Your task to perform on an android device: turn notification dots off Image 0: 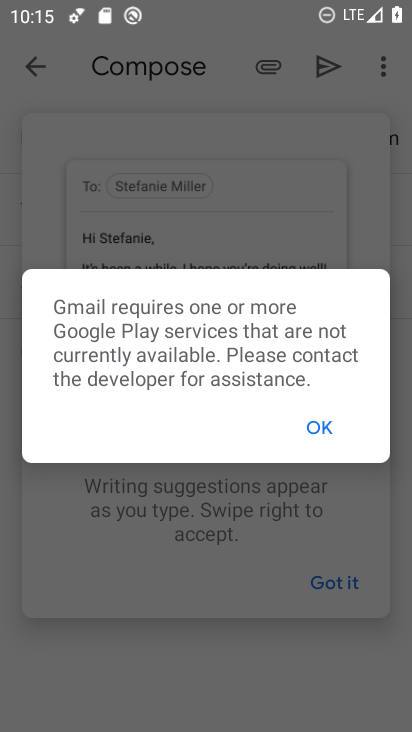
Step 0: press home button
Your task to perform on an android device: turn notification dots off Image 1: 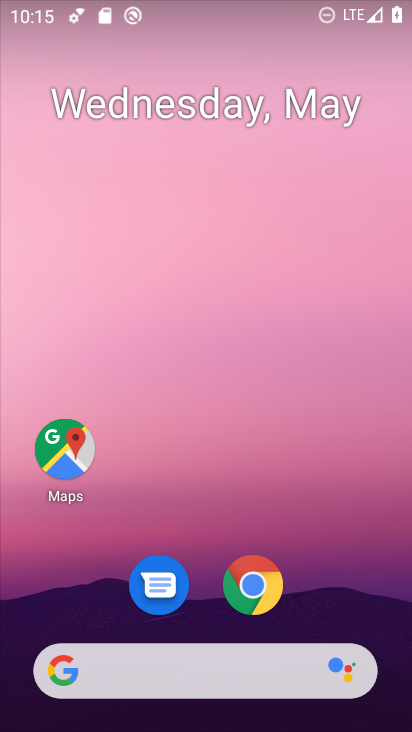
Step 1: drag from (252, 475) to (273, 41)
Your task to perform on an android device: turn notification dots off Image 2: 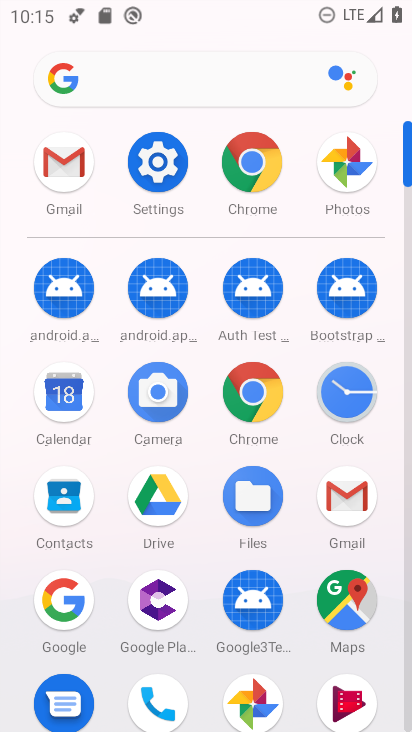
Step 2: click (169, 174)
Your task to perform on an android device: turn notification dots off Image 3: 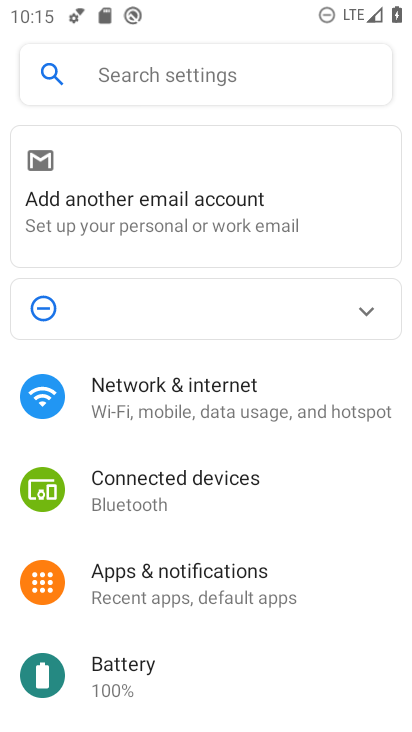
Step 3: click (195, 396)
Your task to perform on an android device: turn notification dots off Image 4: 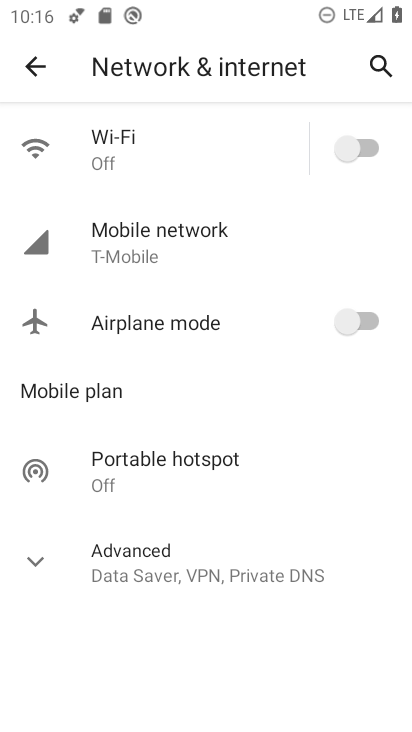
Step 4: click (39, 61)
Your task to perform on an android device: turn notification dots off Image 5: 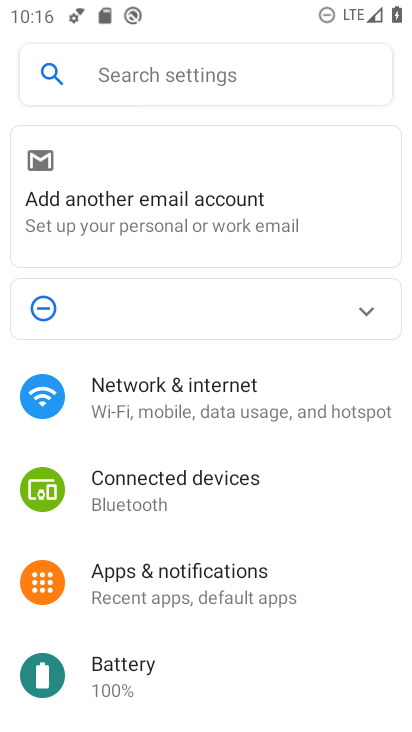
Step 5: click (204, 582)
Your task to perform on an android device: turn notification dots off Image 6: 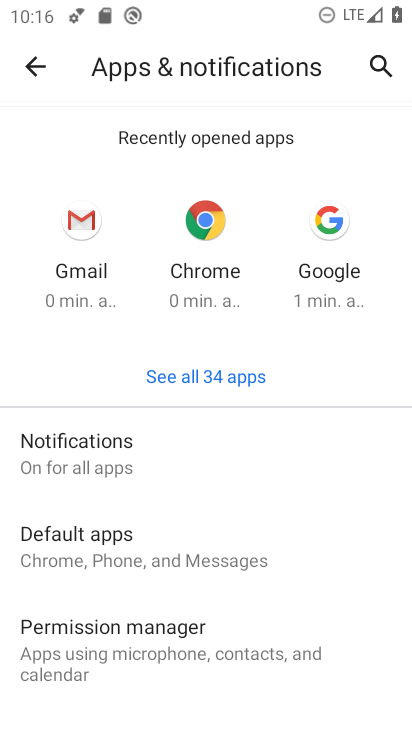
Step 6: click (201, 435)
Your task to perform on an android device: turn notification dots off Image 7: 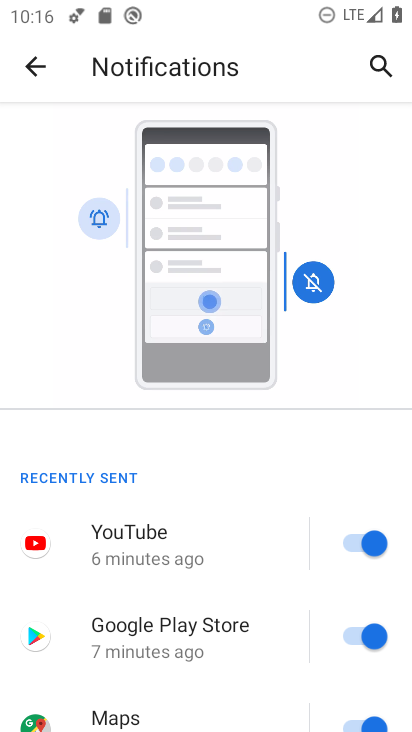
Step 7: drag from (204, 554) to (187, 203)
Your task to perform on an android device: turn notification dots off Image 8: 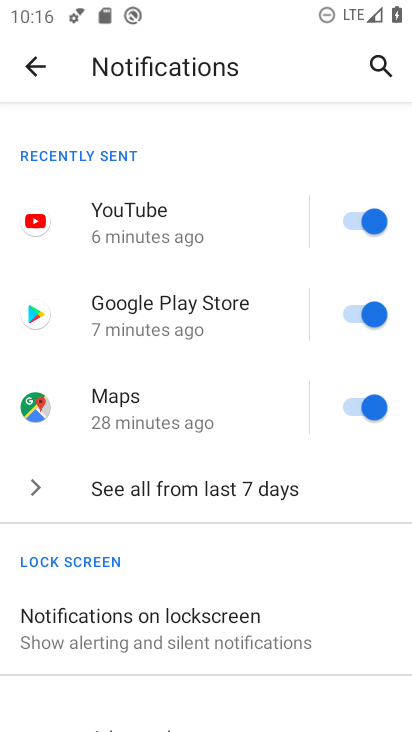
Step 8: click (228, 622)
Your task to perform on an android device: turn notification dots off Image 9: 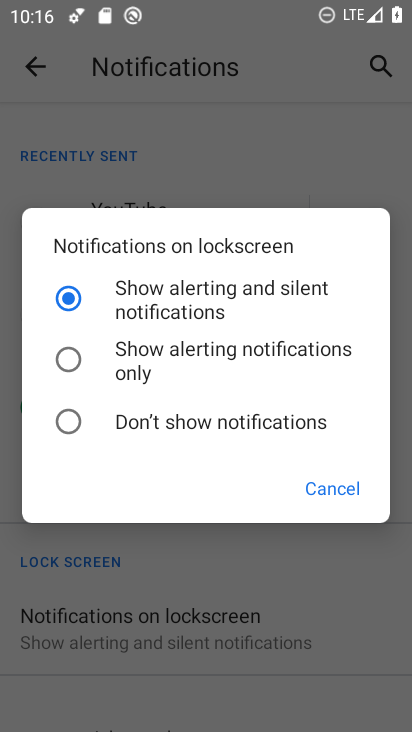
Step 9: click (342, 487)
Your task to perform on an android device: turn notification dots off Image 10: 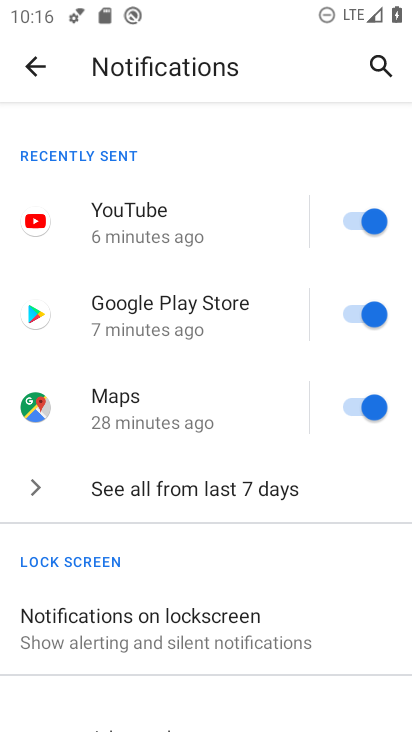
Step 10: drag from (272, 578) to (245, 270)
Your task to perform on an android device: turn notification dots off Image 11: 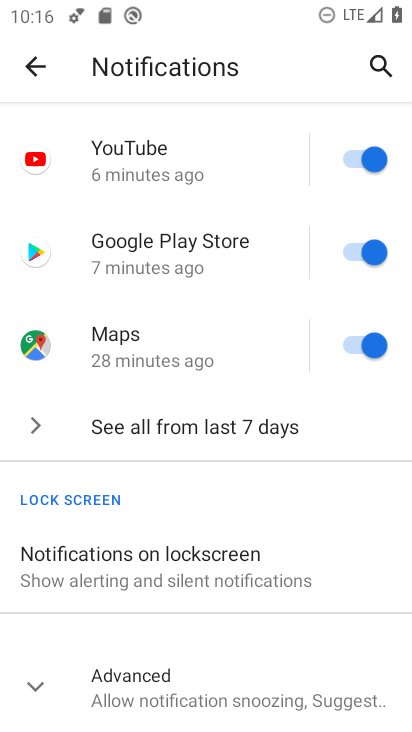
Step 11: click (36, 677)
Your task to perform on an android device: turn notification dots off Image 12: 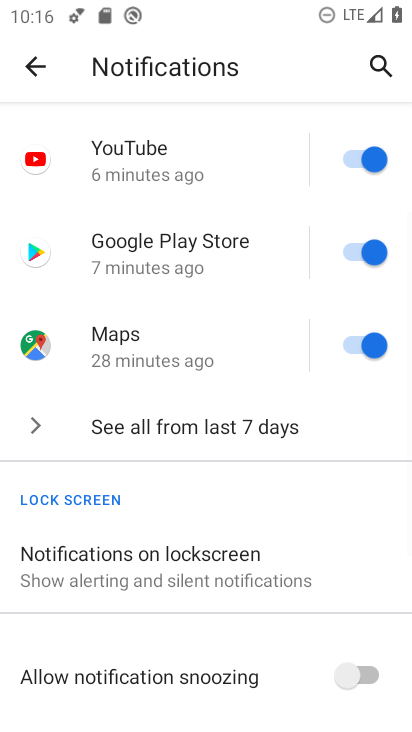
Step 12: drag from (215, 607) to (207, 310)
Your task to perform on an android device: turn notification dots off Image 13: 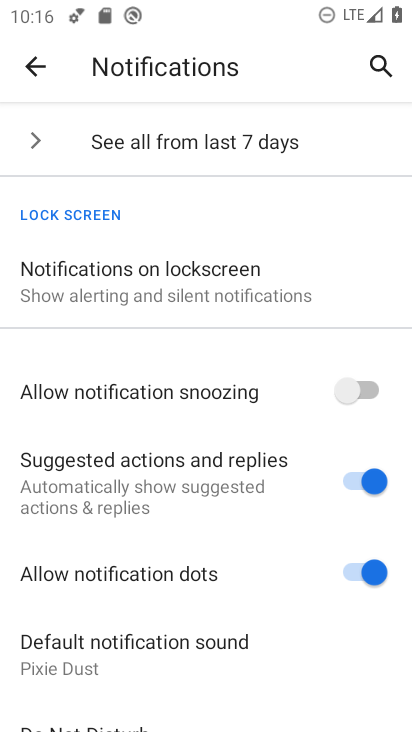
Step 13: click (354, 570)
Your task to perform on an android device: turn notification dots off Image 14: 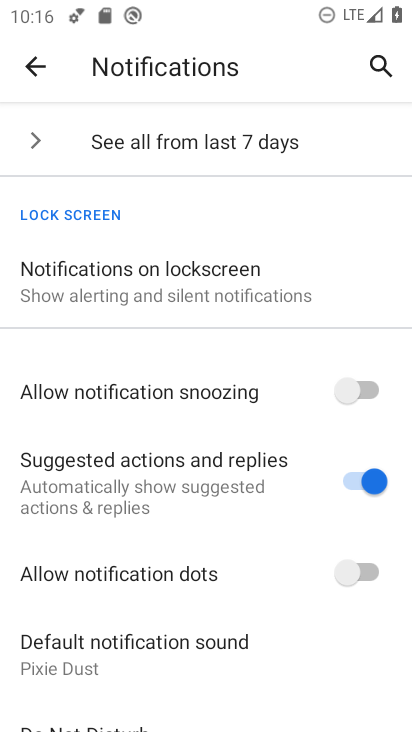
Step 14: task complete